Your task to perform on an android device: Search for seafood restaurants on Google Maps Image 0: 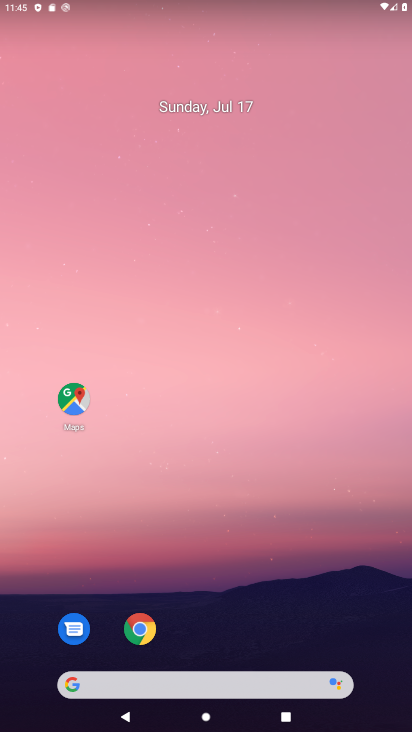
Step 0: drag from (192, 663) to (283, 149)
Your task to perform on an android device: Search for seafood restaurants on Google Maps Image 1: 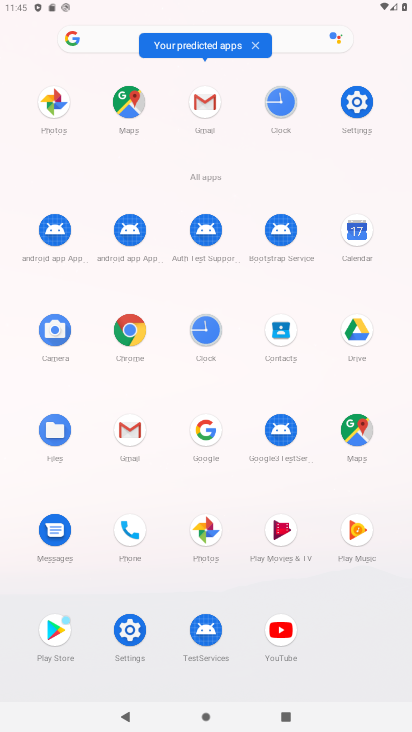
Step 1: click (356, 432)
Your task to perform on an android device: Search for seafood restaurants on Google Maps Image 2: 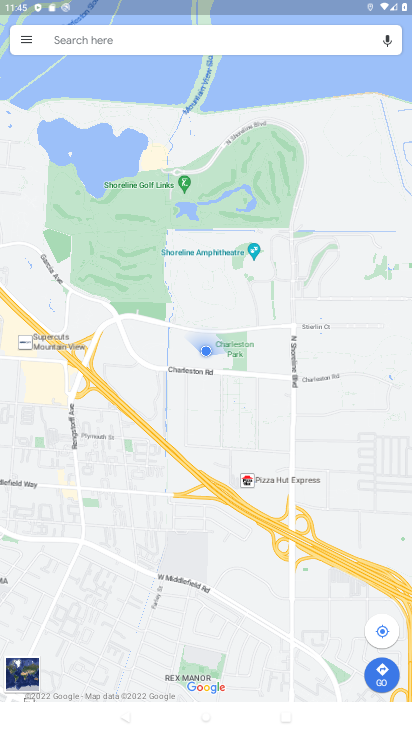
Step 2: click (125, 38)
Your task to perform on an android device: Search for seafood restaurants on Google Maps Image 3: 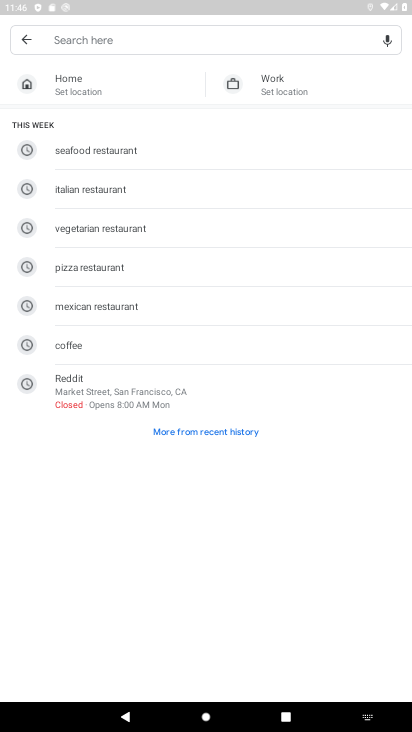
Step 3: type "seafood restaurants"
Your task to perform on an android device: Search for seafood restaurants on Google Maps Image 4: 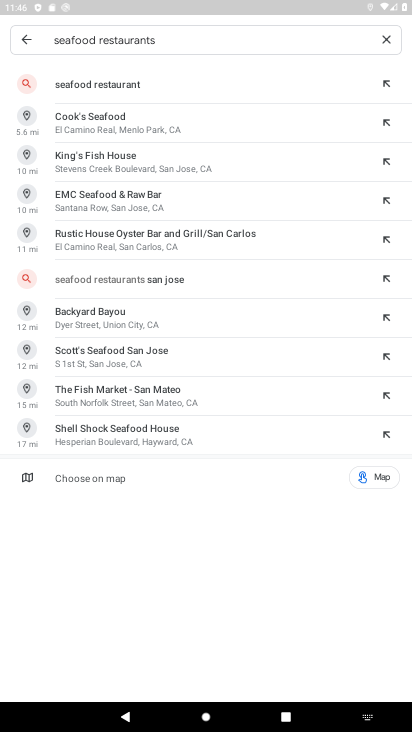
Step 4: click (153, 94)
Your task to perform on an android device: Search for seafood restaurants on Google Maps Image 5: 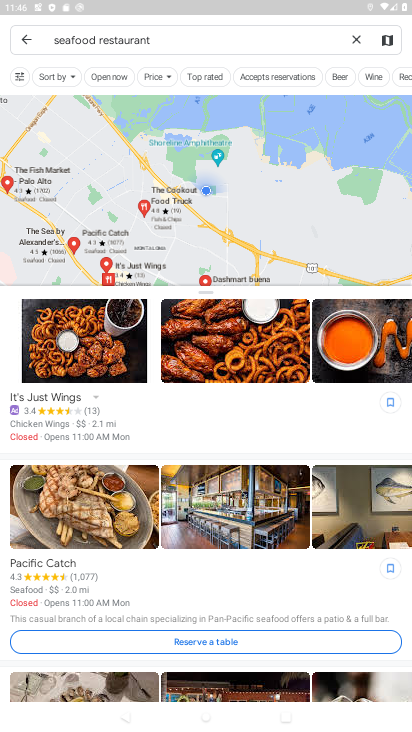
Step 5: task complete